Your task to perform on an android device: What's the weather? Image 0: 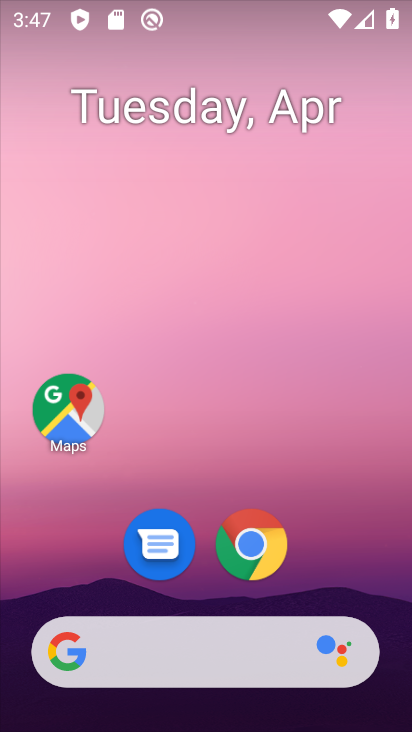
Step 0: click (142, 653)
Your task to perform on an android device: What's the weather? Image 1: 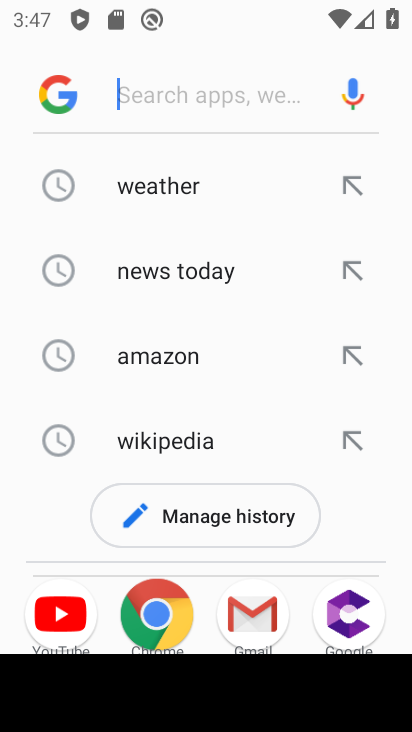
Step 1: click (159, 203)
Your task to perform on an android device: What's the weather? Image 2: 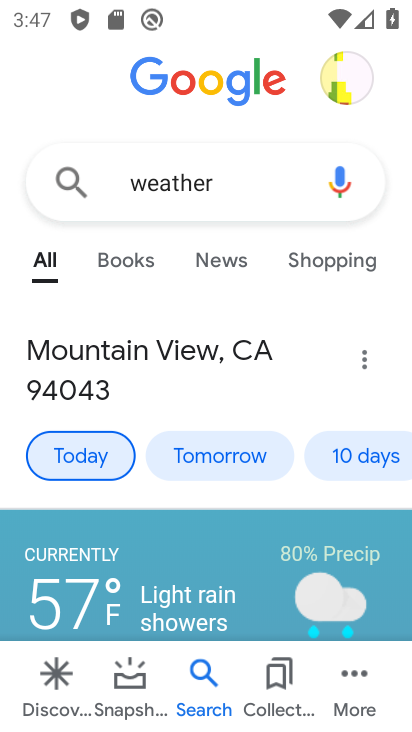
Step 2: task complete